Your task to perform on an android device: change the upload size in google photos Image 0: 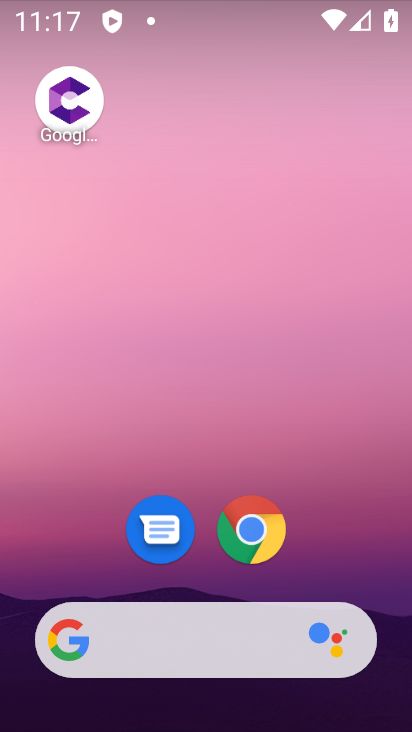
Step 0: drag from (362, 543) to (281, 38)
Your task to perform on an android device: change the upload size in google photos Image 1: 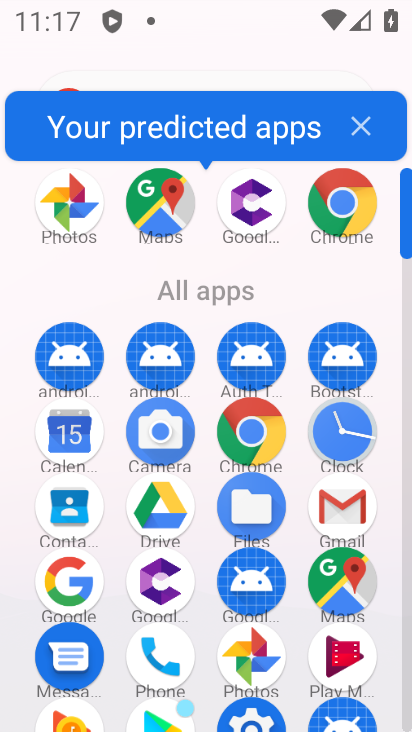
Step 1: click (68, 200)
Your task to perform on an android device: change the upload size in google photos Image 2: 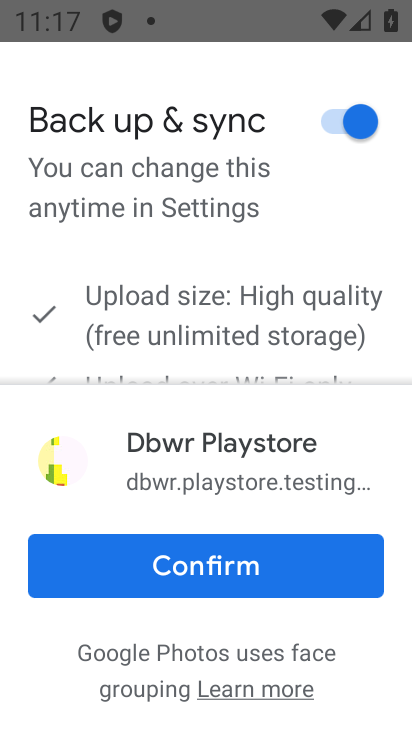
Step 2: click (190, 575)
Your task to perform on an android device: change the upload size in google photos Image 3: 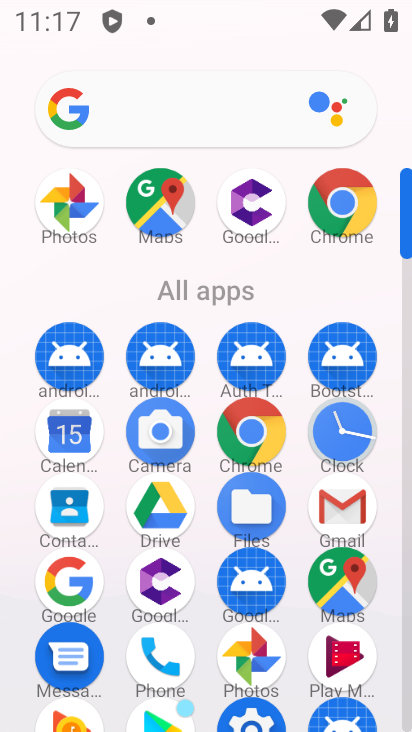
Step 3: click (69, 199)
Your task to perform on an android device: change the upload size in google photos Image 4: 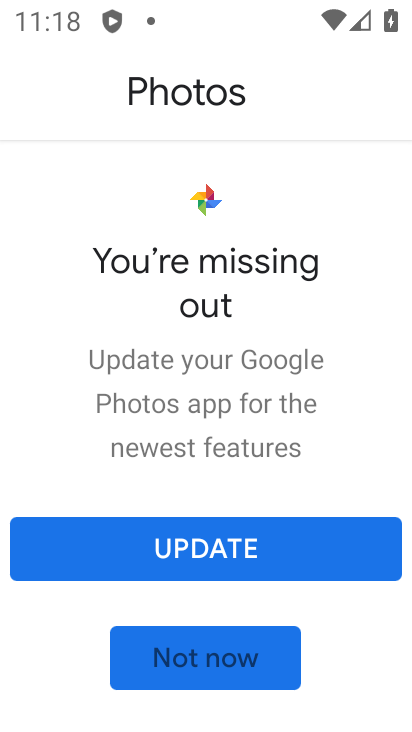
Step 4: click (225, 544)
Your task to perform on an android device: change the upload size in google photos Image 5: 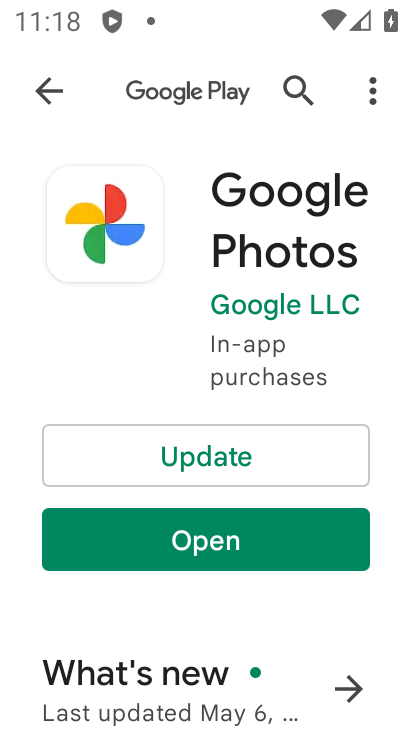
Step 5: click (200, 449)
Your task to perform on an android device: change the upload size in google photos Image 6: 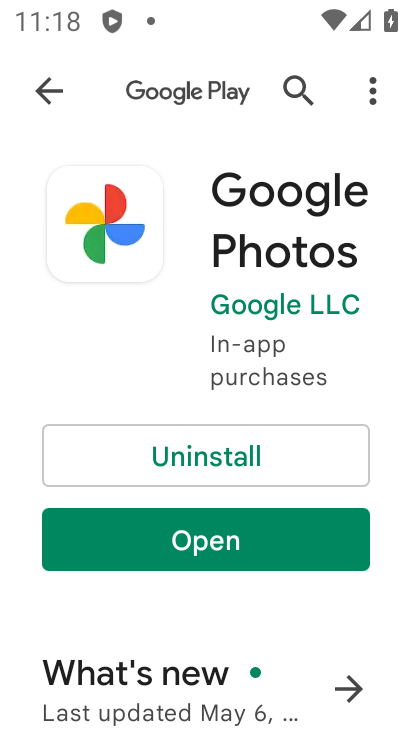
Step 6: click (187, 540)
Your task to perform on an android device: change the upload size in google photos Image 7: 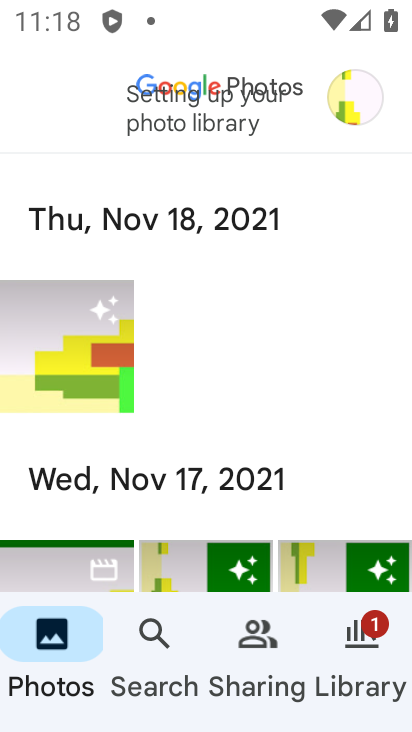
Step 7: click (358, 89)
Your task to perform on an android device: change the upload size in google photos Image 8: 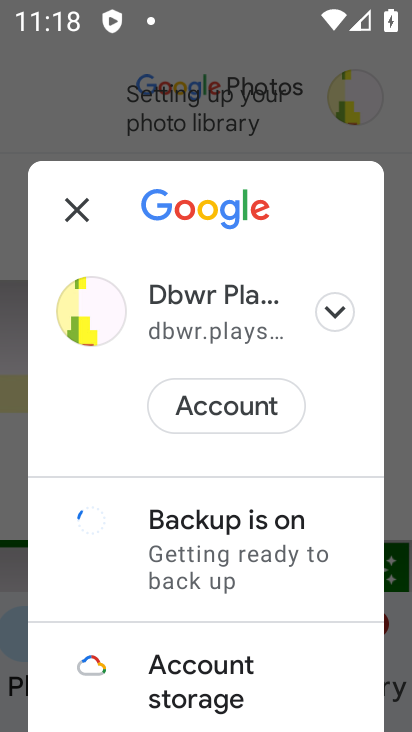
Step 8: drag from (263, 649) to (314, 428)
Your task to perform on an android device: change the upload size in google photos Image 9: 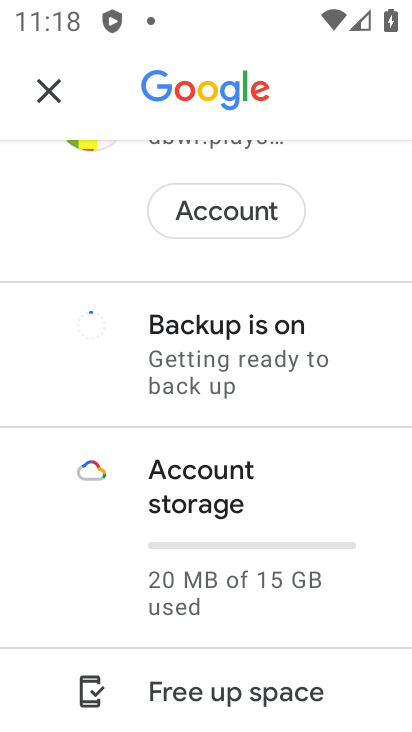
Step 9: drag from (255, 603) to (311, 379)
Your task to perform on an android device: change the upload size in google photos Image 10: 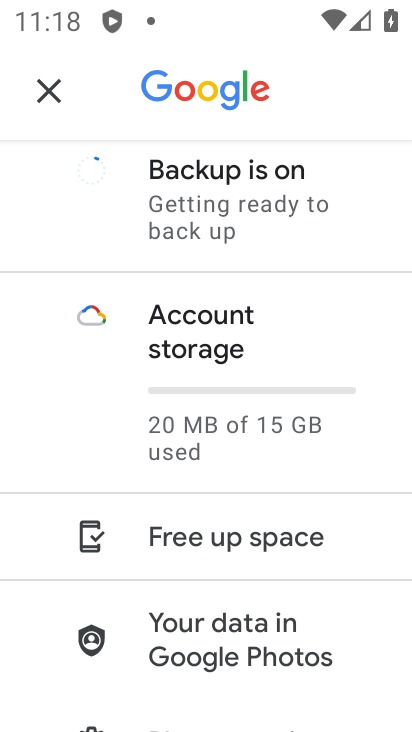
Step 10: drag from (247, 615) to (317, 403)
Your task to perform on an android device: change the upload size in google photos Image 11: 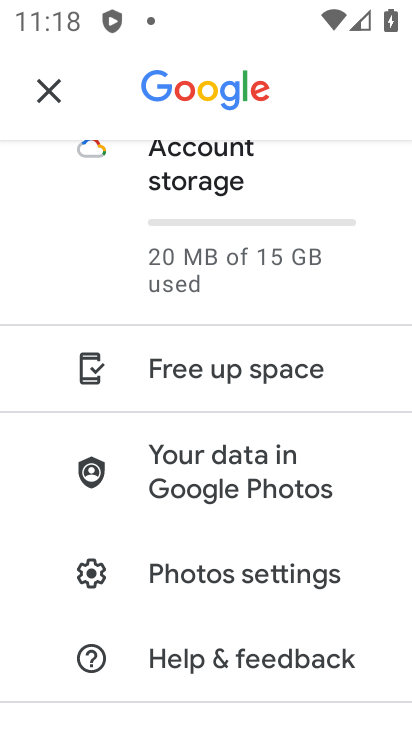
Step 11: click (274, 578)
Your task to perform on an android device: change the upload size in google photos Image 12: 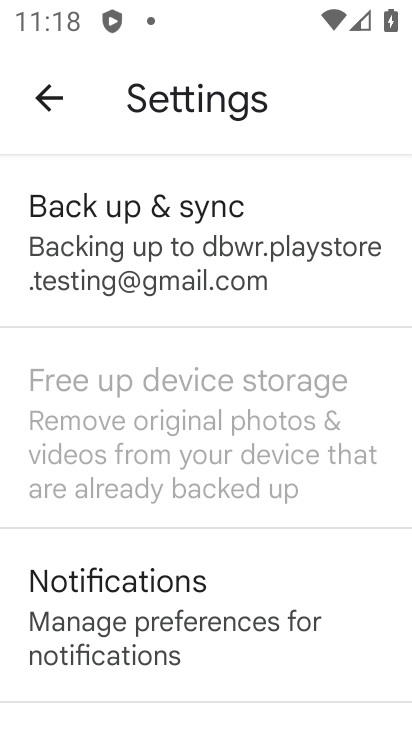
Step 12: click (191, 232)
Your task to perform on an android device: change the upload size in google photos Image 13: 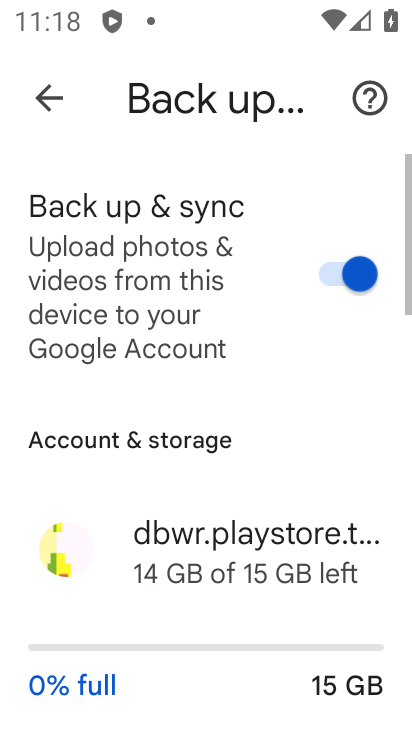
Step 13: drag from (184, 506) to (250, 314)
Your task to perform on an android device: change the upload size in google photos Image 14: 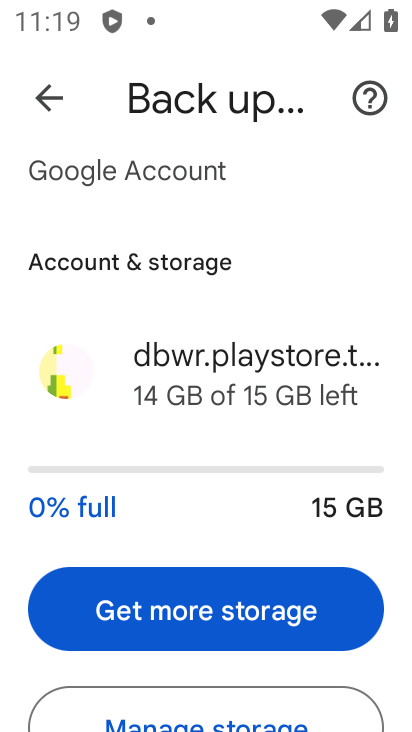
Step 14: drag from (191, 656) to (238, 323)
Your task to perform on an android device: change the upload size in google photos Image 15: 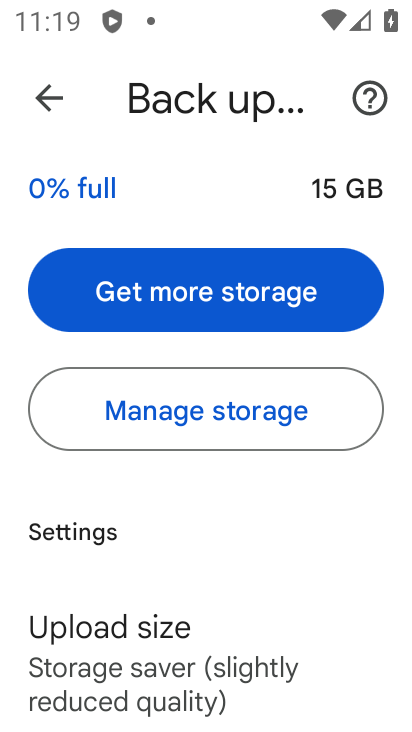
Step 15: drag from (217, 586) to (306, 336)
Your task to perform on an android device: change the upload size in google photos Image 16: 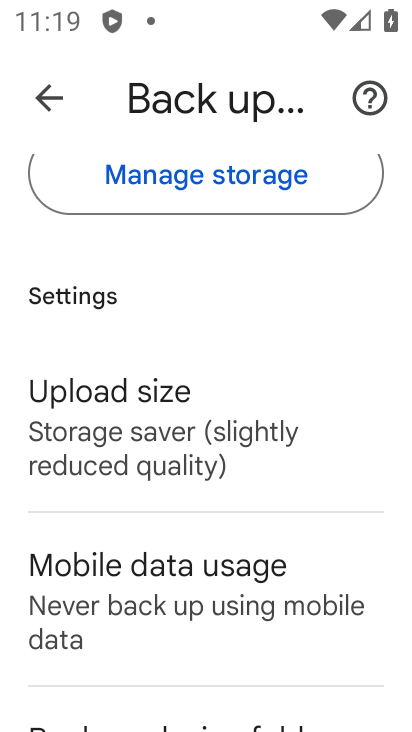
Step 16: click (205, 436)
Your task to perform on an android device: change the upload size in google photos Image 17: 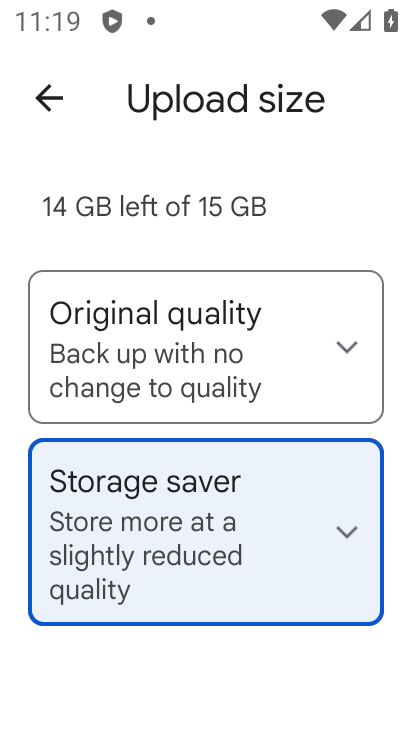
Step 17: click (96, 287)
Your task to perform on an android device: change the upload size in google photos Image 18: 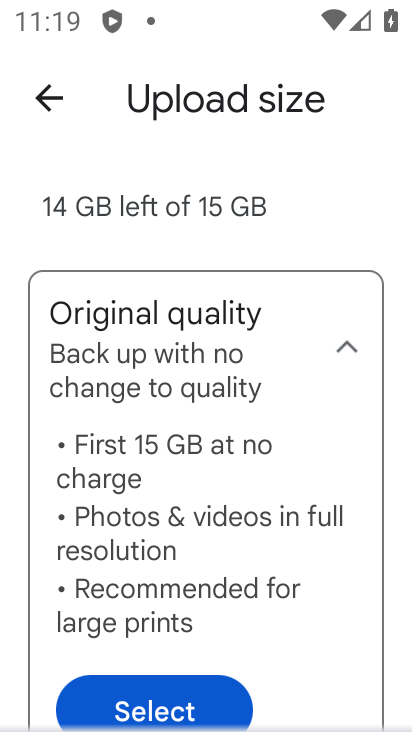
Step 18: click (141, 699)
Your task to perform on an android device: change the upload size in google photos Image 19: 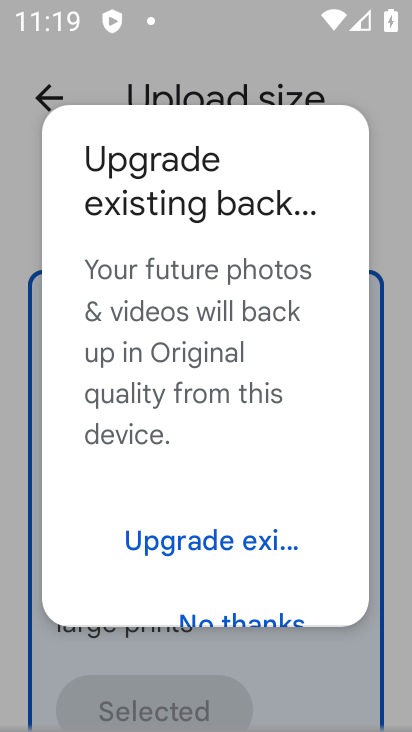
Step 19: drag from (237, 581) to (273, 358)
Your task to perform on an android device: change the upload size in google photos Image 20: 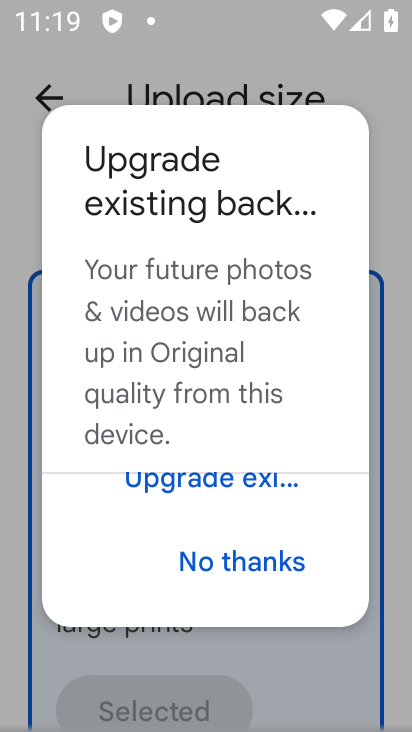
Step 20: click (241, 557)
Your task to perform on an android device: change the upload size in google photos Image 21: 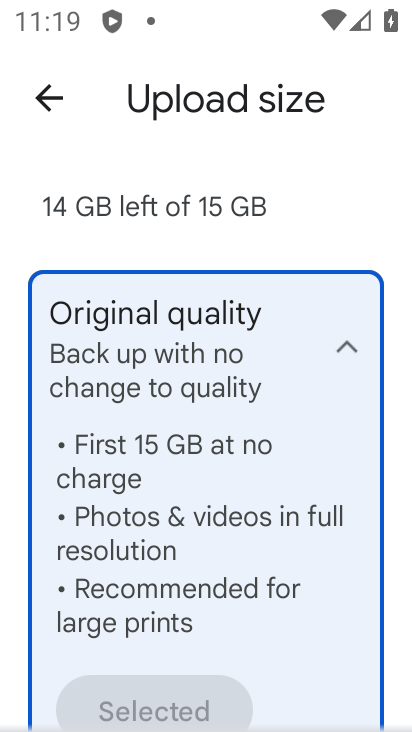
Step 21: task complete